Your task to perform on an android device: check storage Image 0: 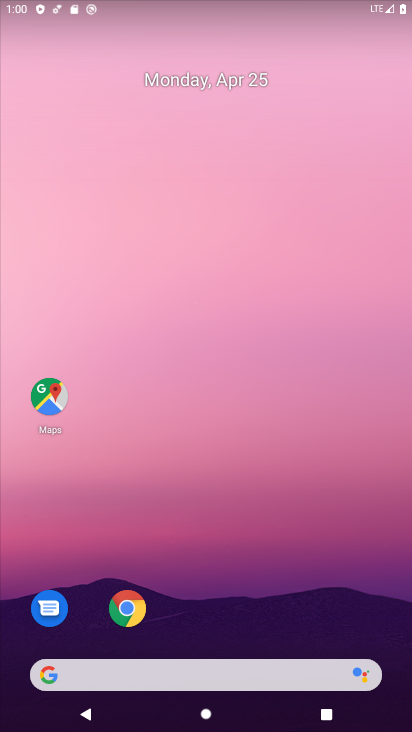
Step 0: drag from (209, 600) to (324, 92)
Your task to perform on an android device: check storage Image 1: 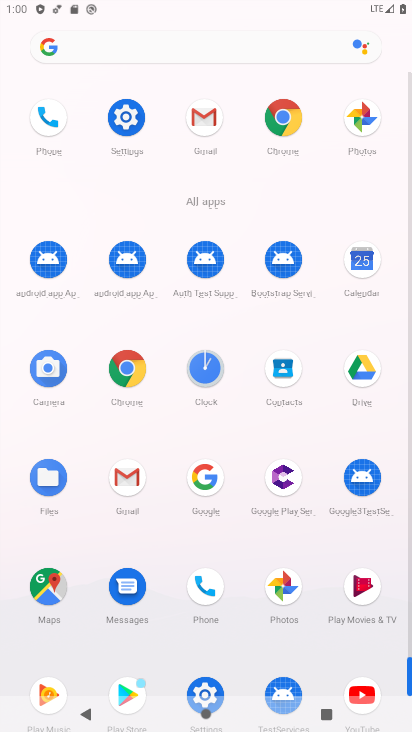
Step 1: click (132, 130)
Your task to perform on an android device: check storage Image 2: 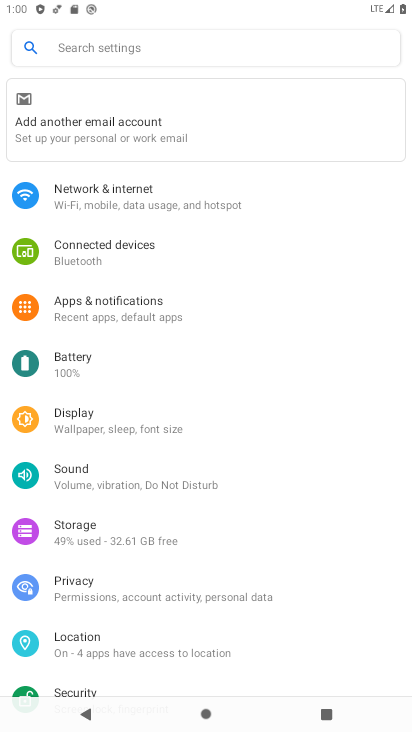
Step 2: click (114, 522)
Your task to perform on an android device: check storage Image 3: 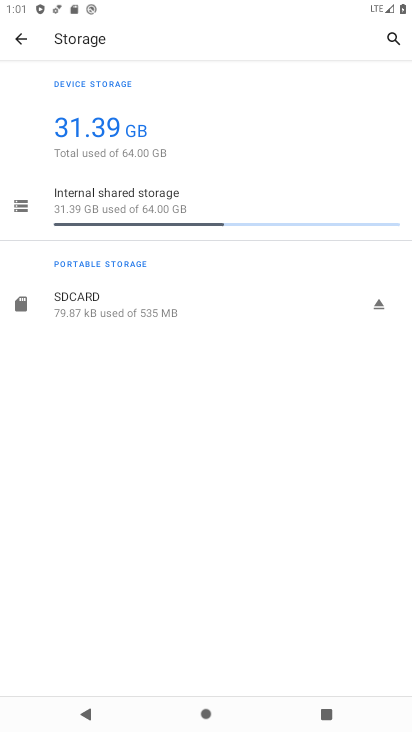
Step 3: task complete